Your task to perform on an android device: Go to internet settings Image 0: 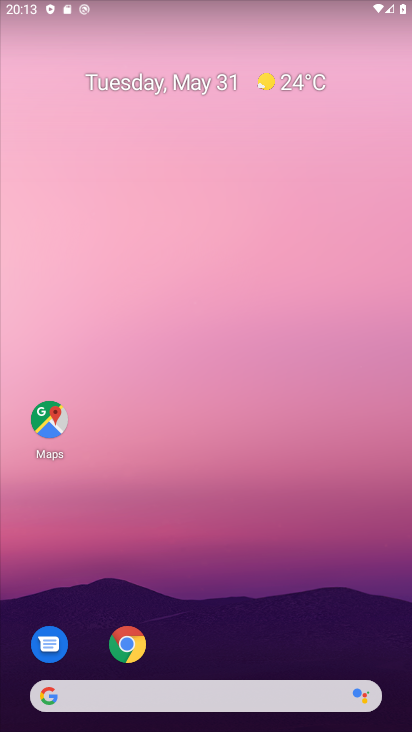
Step 0: drag from (286, 563) to (283, 281)
Your task to perform on an android device: Go to internet settings Image 1: 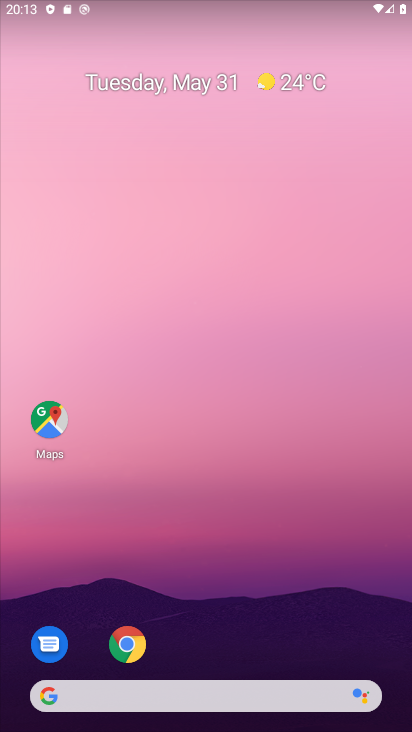
Step 1: drag from (266, 618) to (223, 285)
Your task to perform on an android device: Go to internet settings Image 2: 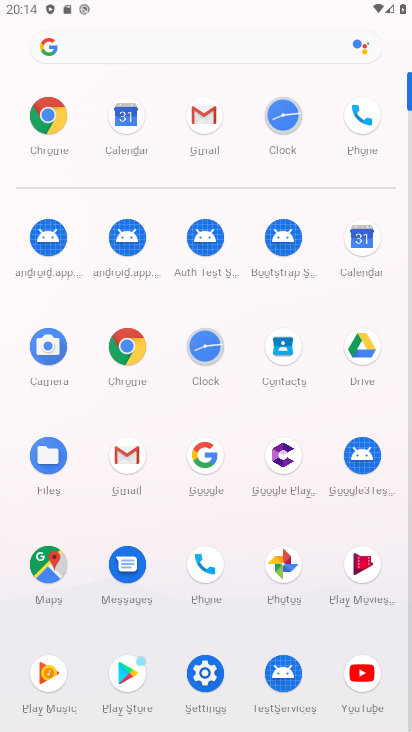
Step 2: click (207, 672)
Your task to perform on an android device: Go to internet settings Image 3: 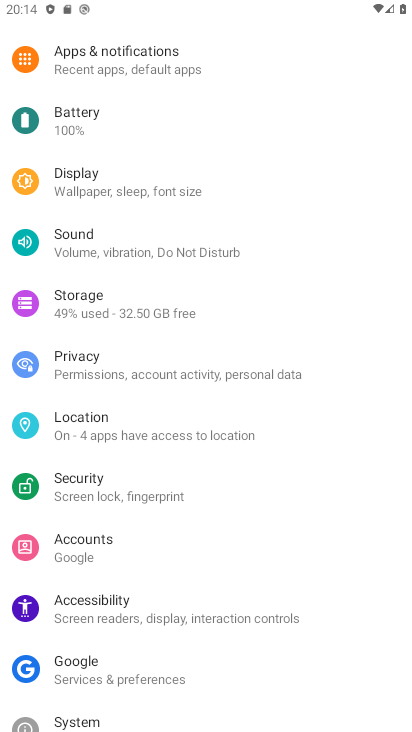
Step 3: drag from (197, 89) to (217, 470)
Your task to perform on an android device: Go to internet settings Image 4: 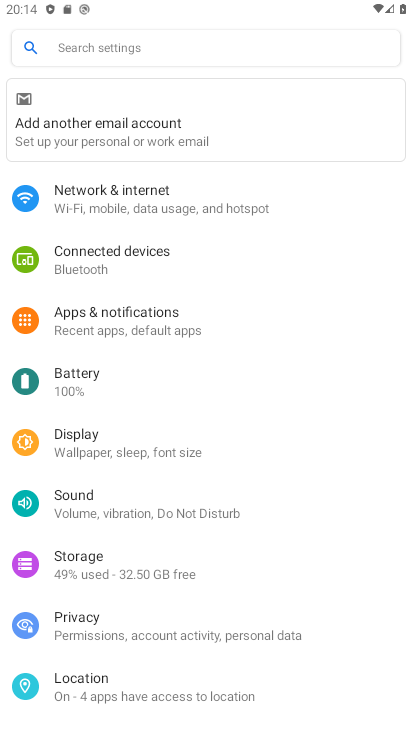
Step 4: click (185, 203)
Your task to perform on an android device: Go to internet settings Image 5: 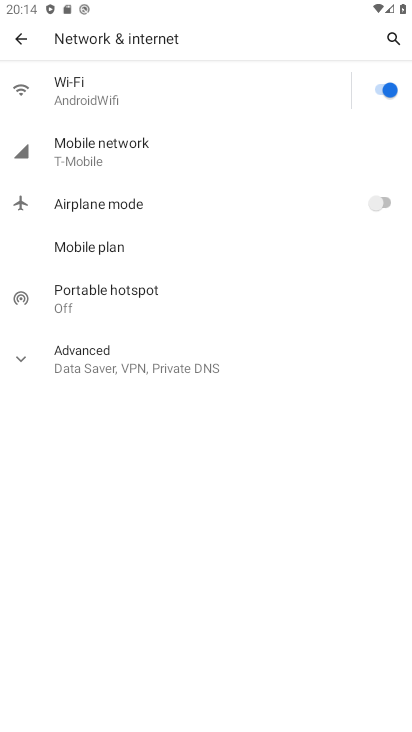
Step 5: task complete